Your task to perform on an android device: open wifi settings Image 0: 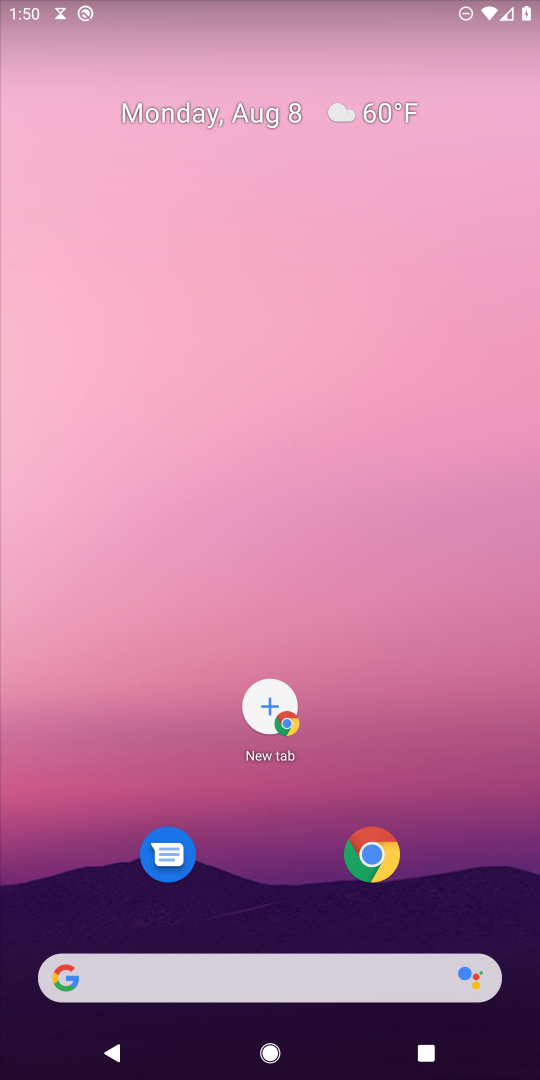
Step 0: drag from (478, 831) to (456, 117)
Your task to perform on an android device: open wifi settings Image 1: 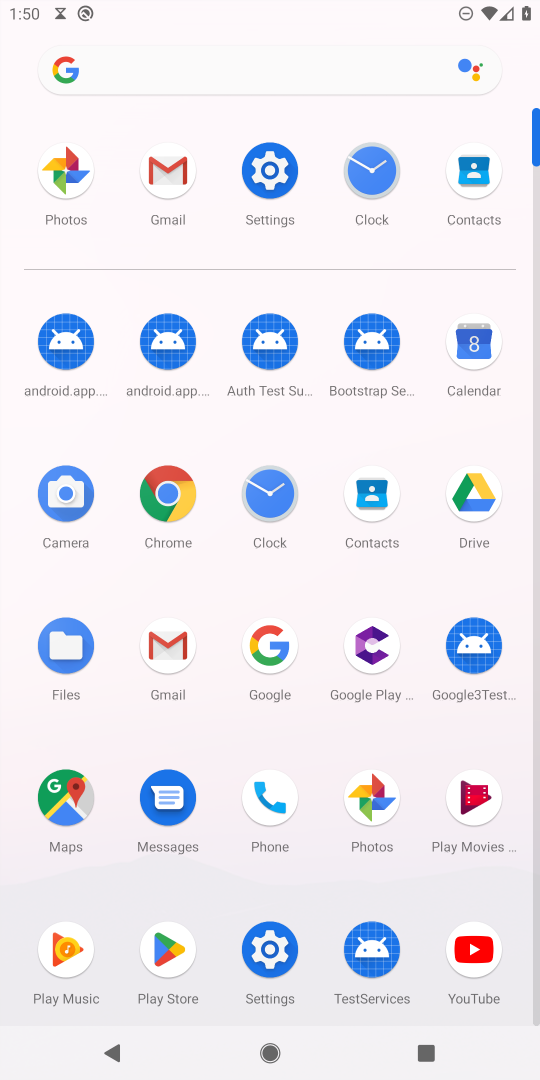
Step 1: click (267, 159)
Your task to perform on an android device: open wifi settings Image 2: 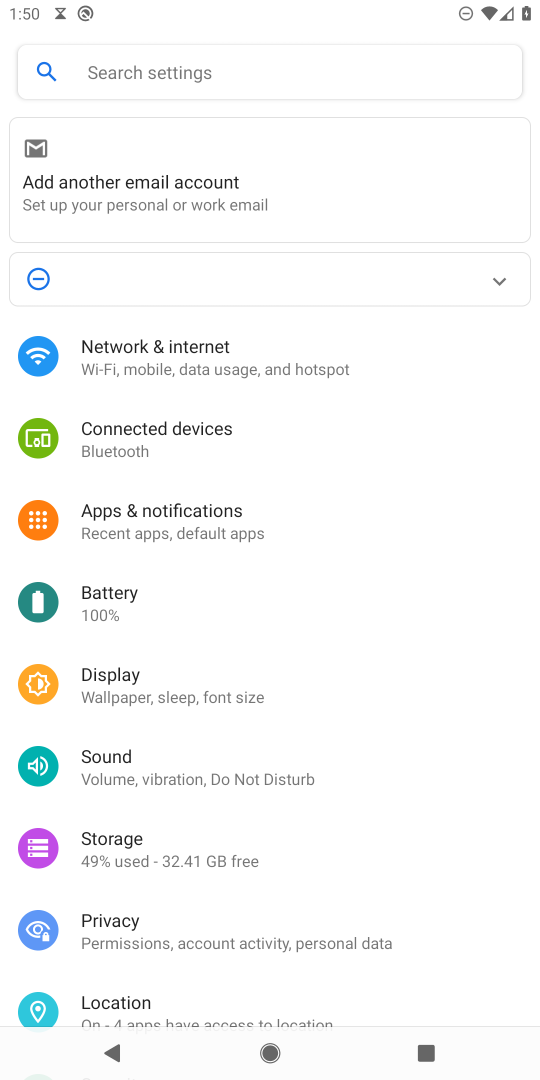
Step 2: click (170, 334)
Your task to perform on an android device: open wifi settings Image 3: 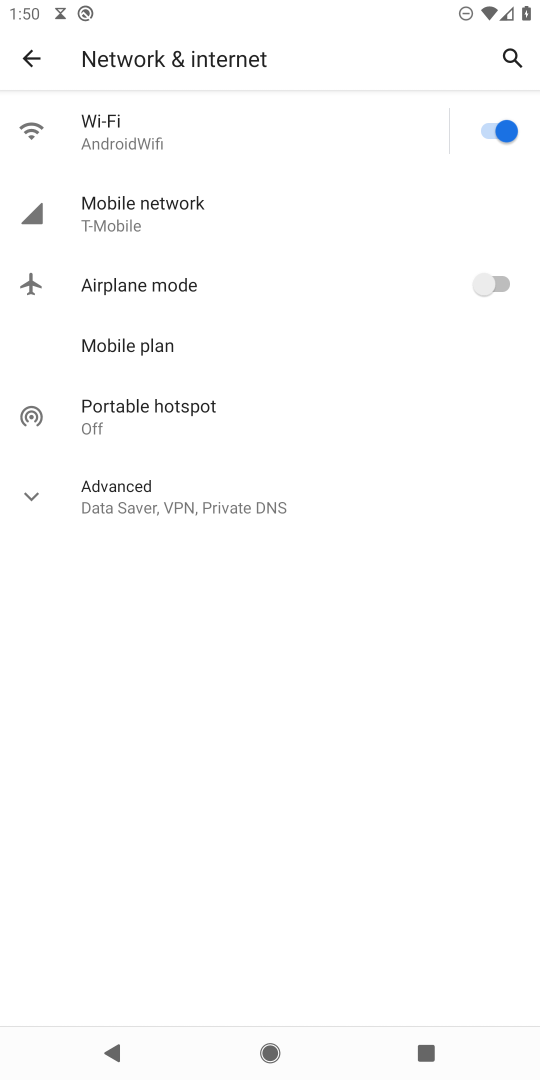
Step 3: task complete